Your task to perform on an android device: Open display settings Image 0: 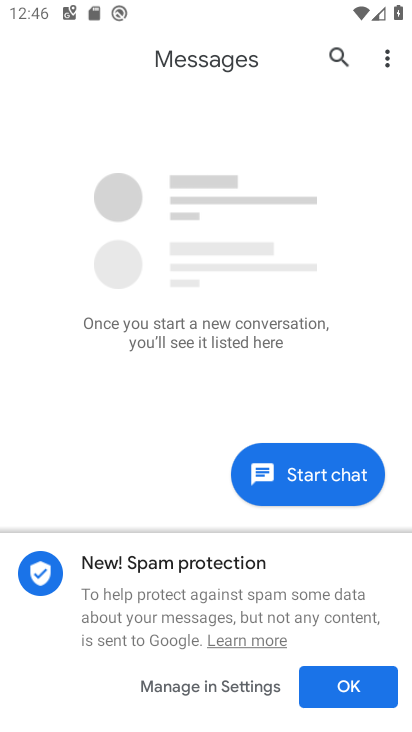
Step 0: press home button
Your task to perform on an android device: Open display settings Image 1: 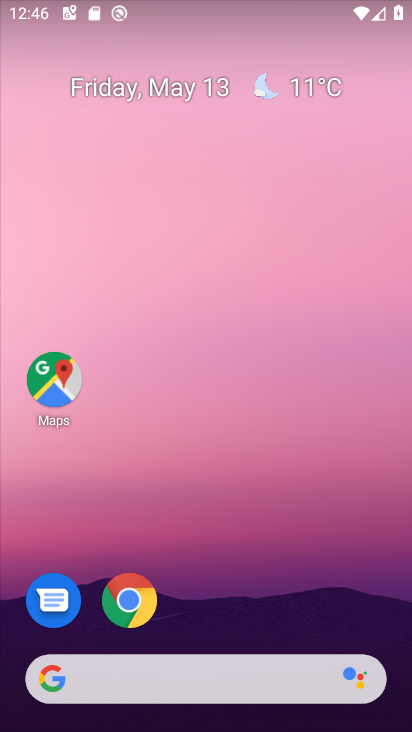
Step 1: drag from (197, 637) to (241, 52)
Your task to perform on an android device: Open display settings Image 2: 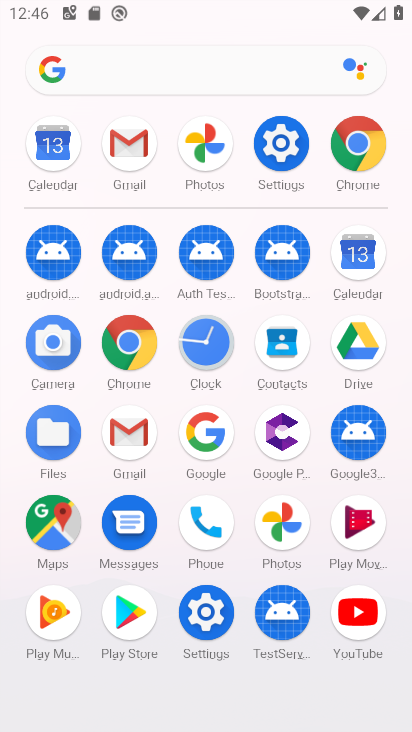
Step 2: click (272, 157)
Your task to perform on an android device: Open display settings Image 3: 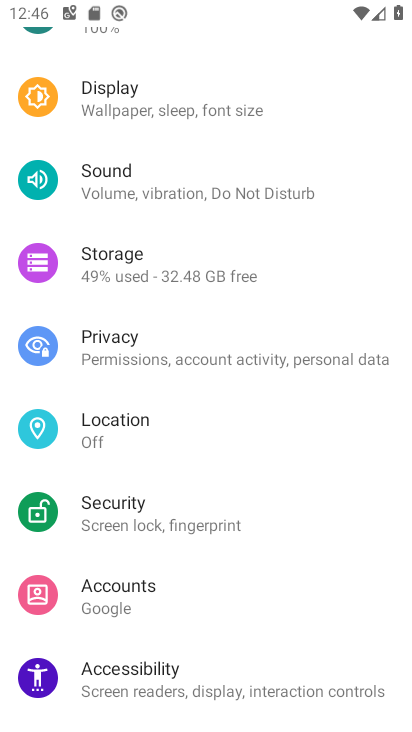
Step 3: click (206, 91)
Your task to perform on an android device: Open display settings Image 4: 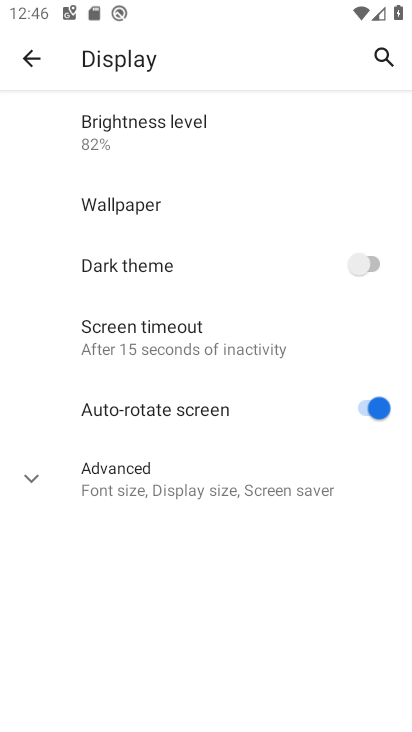
Step 4: task complete